Your task to perform on an android device: toggle location history Image 0: 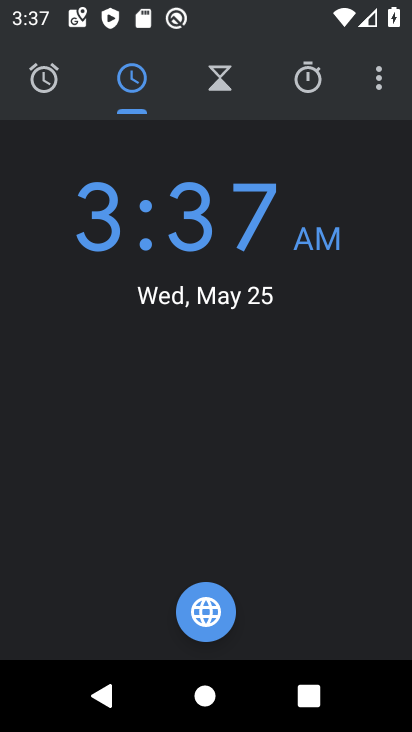
Step 0: press back button
Your task to perform on an android device: toggle location history Image 1: 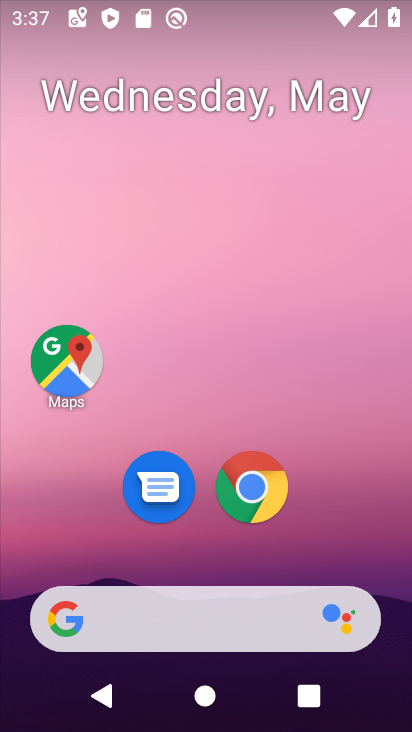
Step 1: drag from (334, 504) to (268, 40)
Your task to perform on an android device: toggle location history Image 2: 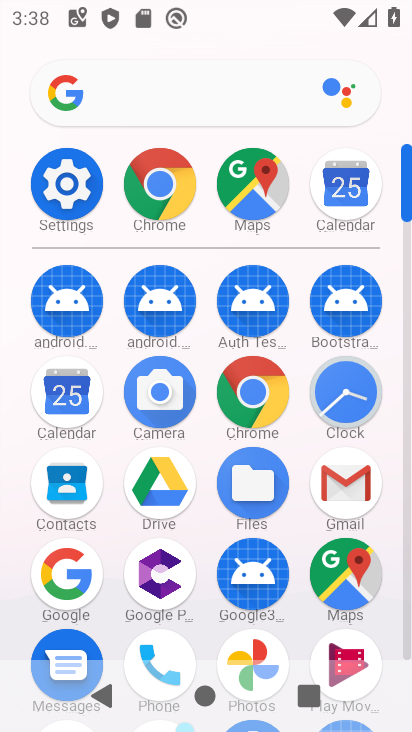
Step 2: click (65, 180)
Your task to perform on an android device: toggle location history Image 3: 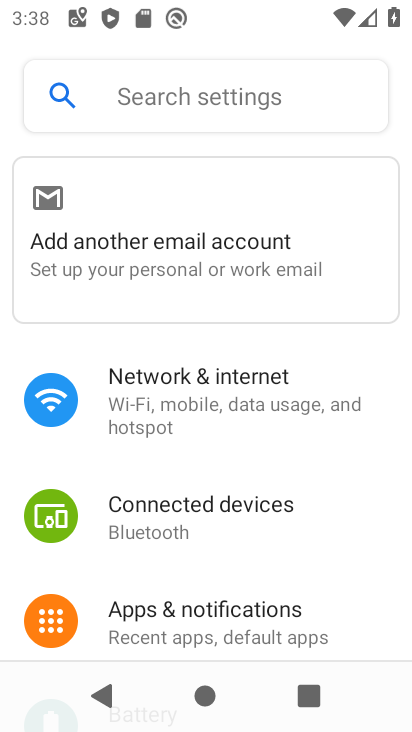
Step 3: drag from (312, 621) to (304, 286)
Your task to perform on an android device: toggle location history Image 4: 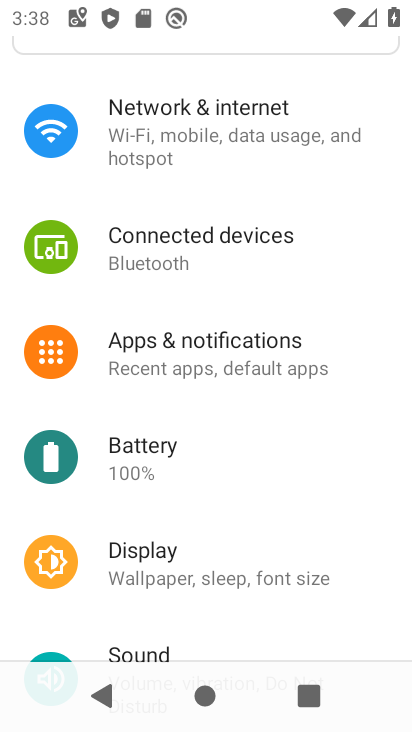
Step 4: drag from (282, 543) to (295, 199)
Your task to perform on an android device: toggle location history Image 5: 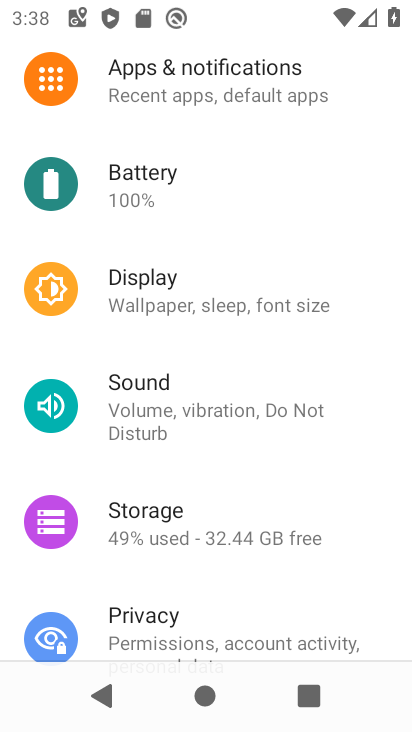
Step 5: drag from (276, 524) to (281, 161)
Your task to perform on an android device: toggle location history Image 6: 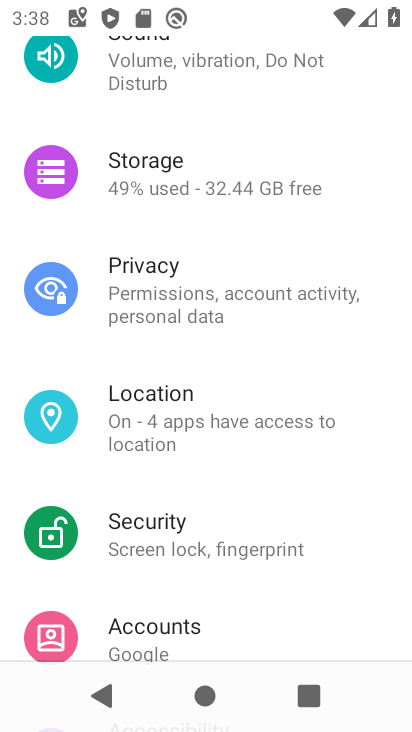
Step 6: click (213, 401)
Your task to perform on an android device: toggle location history Image 7: 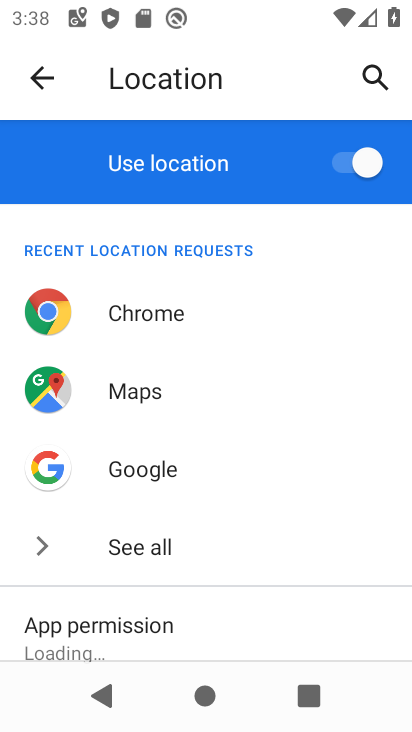
Step 7: drag from (234, 556) to (241, 204)
Your task to perform on an android device: toggle location history Image 8: 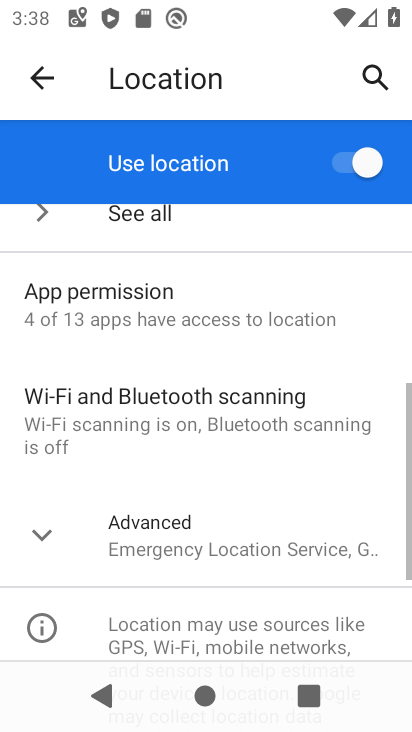
Step 8: click (222, 540)
Your task to perform on an android device: toggle location history Image 9: 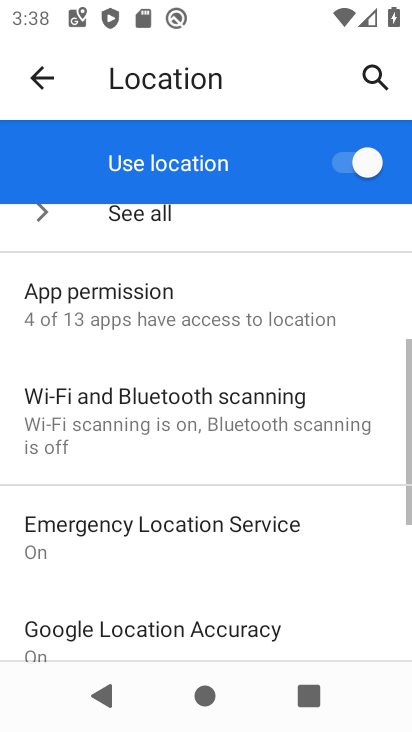
Step 9: drag from (304, 526) to (288, 230)
Your task to perform on an android device: toggle location history Image 10: 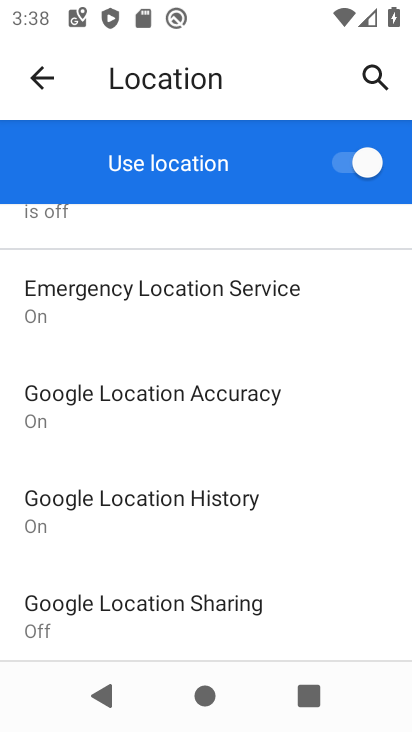
Step 10: click (168, 482)
Your task to perform on an android device: toggle location history Image 11: 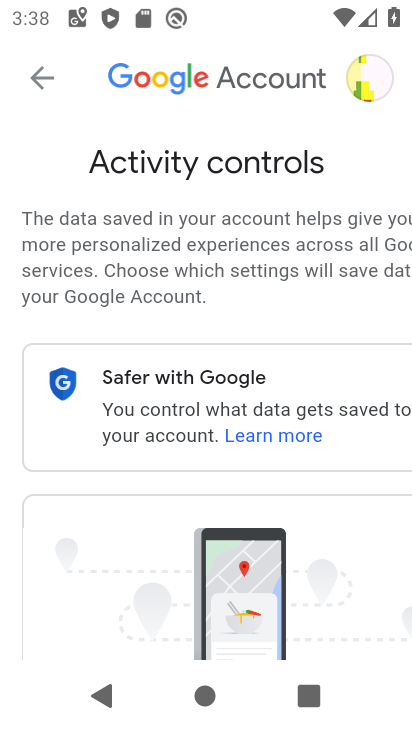
Step 11: drag from (194, 539) to (124, 121)
Your task to perform on an android device: toggle location history Image 12: 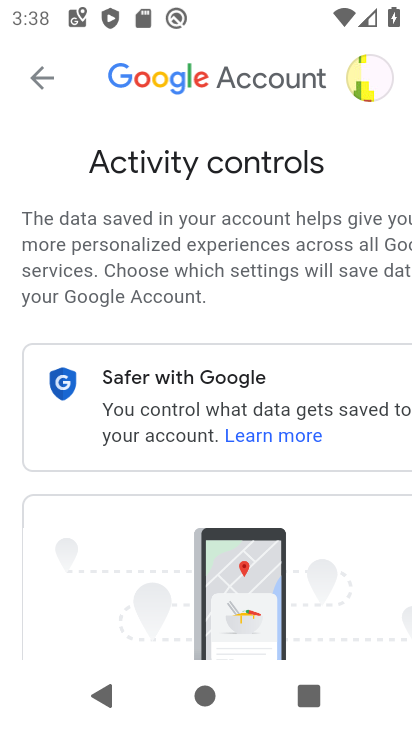
Step 12: drag from (166, 564) to (140, 266)
Your task to perform on an android device: toggle location history Image 13: 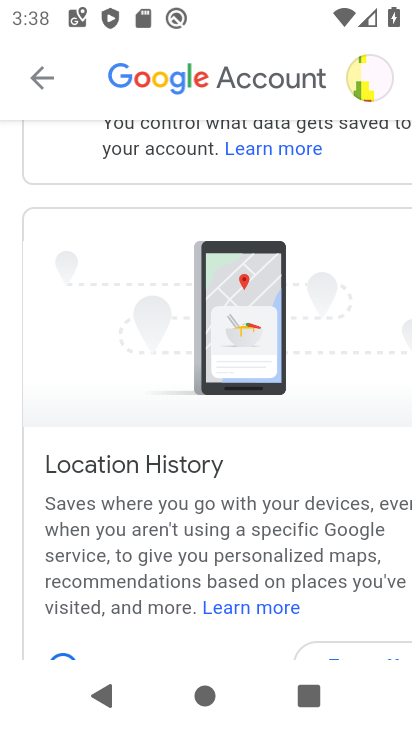
Step 13: drag from (178, 524) to (146, 169)
Your task to perform on an android device: toggle location history Image 14: 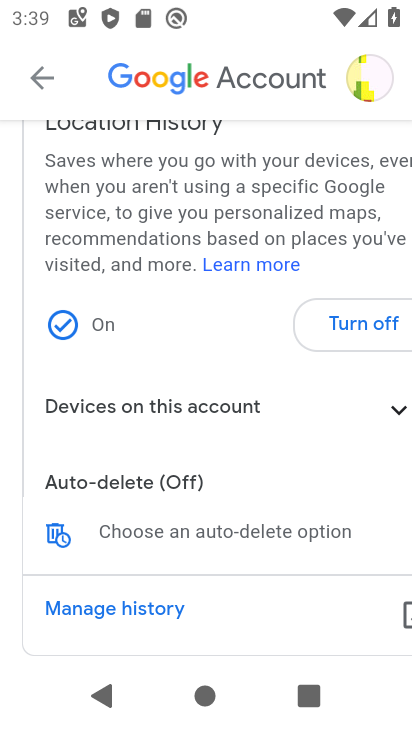
Step 14: click (356, 313)
Your task to perform on an android device: toggle location history Image 15: 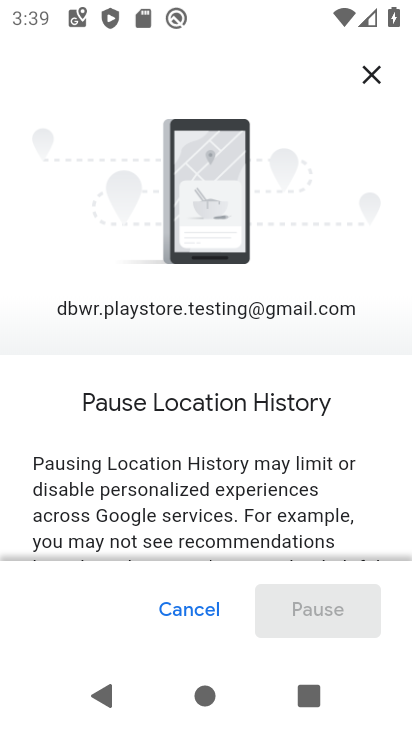
Step 15: drag from (253, 488) to (278, 122)
Your task to perform on an android device: toggle location history Image 16: 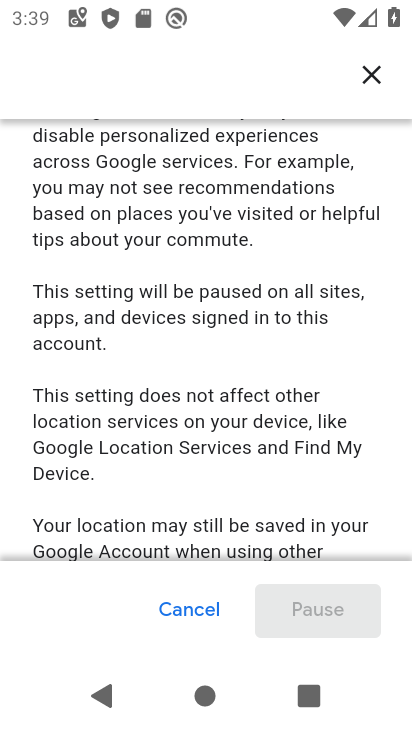
Step 16: drag from (222, 488) to (222, 96)
Your task to perform on an android device: toggle location history Image 17: 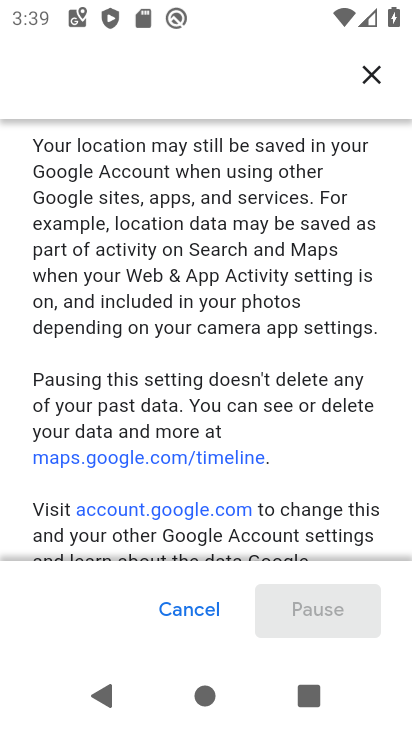
Step 17: drag from (223, 484) to (248, 128)
Your task to perform on an android device: toggle location history Image 18: 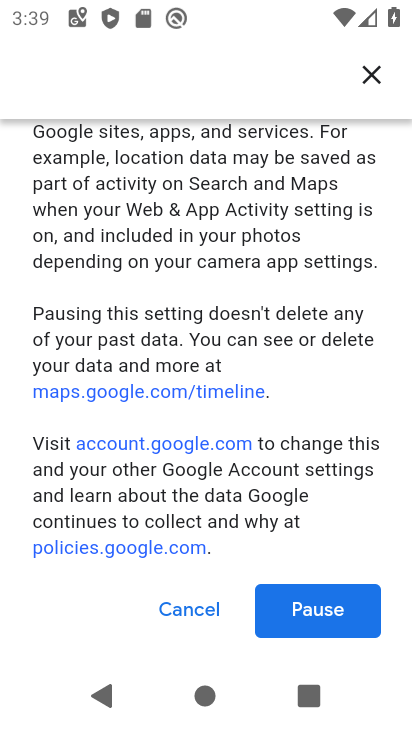
Step 18: click (302, 612)
Your task to perform on an android device: toggle location history Image 19: 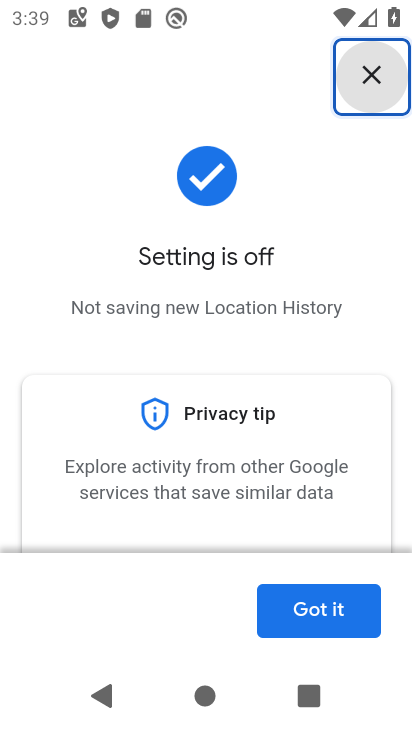
Step 19: task complete